Your task to perform on an android device: show emergency info Image 0: 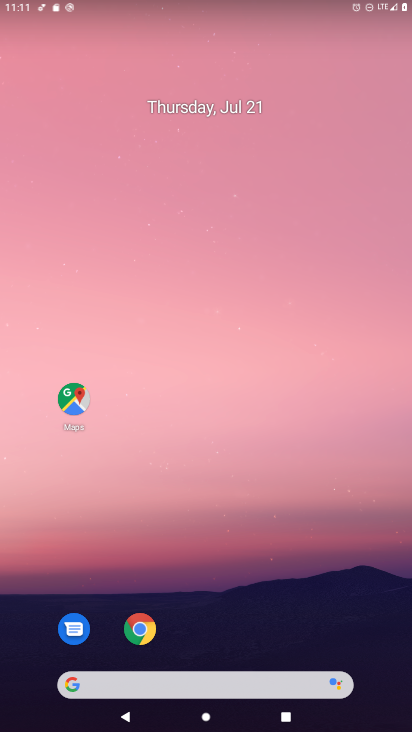
Step 0: drag from (236, 633) to (303, 78)
Your task to perform on an android device: show emergency info Image 1: 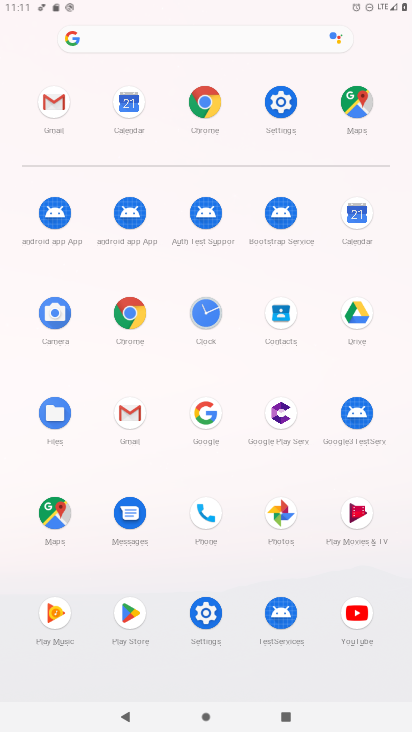
Step 1: click (196, 617)
Your task to perform on an android device: show emergency info Image 2: 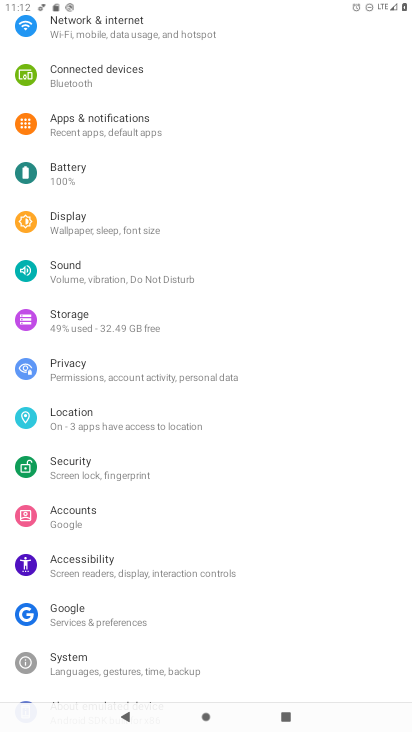
Step 2: drag from (185, 659) to (243, 76)
Your task to perform on an android device: show emergency info Image 3: 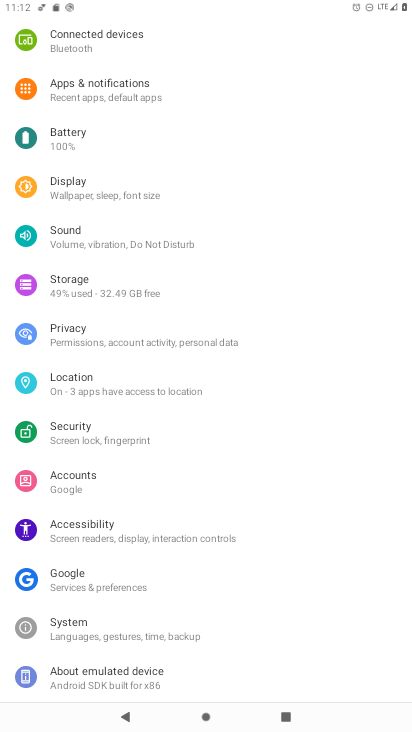
Step 3: click (82, 677)
Your task to perform on an android device: show emergency info Image 4: 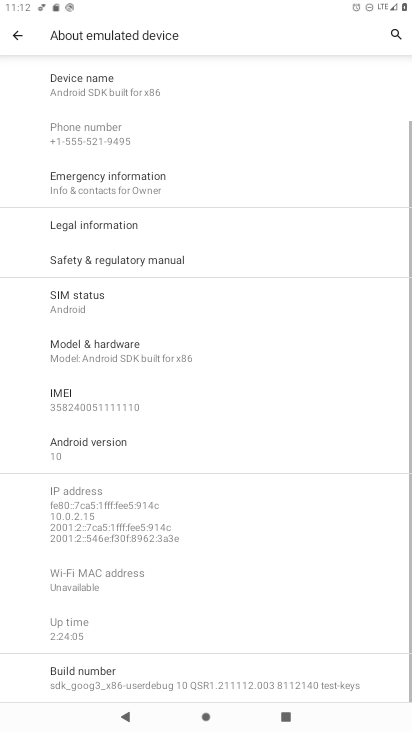
Step 4: click (70, 179)
Your task to perform on an android device: show emergency info Image 5: 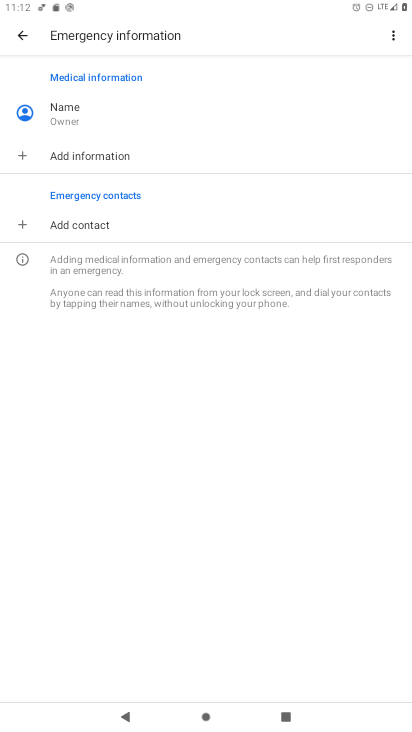
Step 5: task complete